Your task to perform on an android device: Do I have any events tomorrow? Image 0: 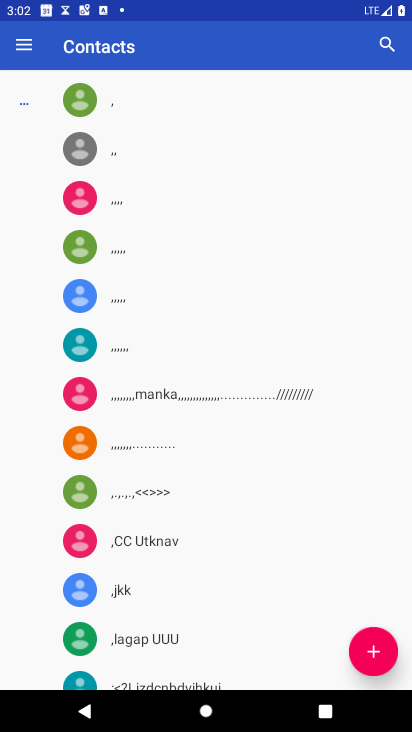
Step 0: press home button
Your task to perform on an android device: Do I have any events tomorrow? Image 1: 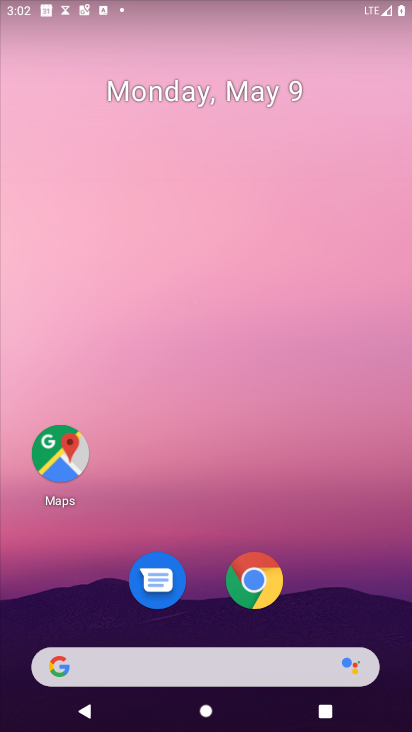
Step 1: drag from (341, 563) to (241, 114)
Your task to perform on an android device: Do I have any events tomorrow? Image 2: 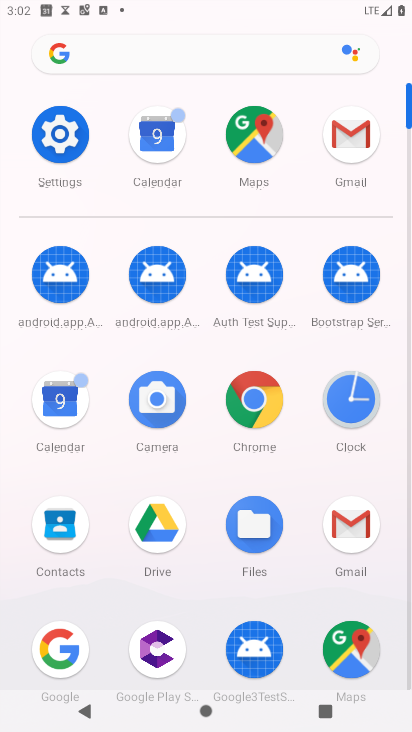
Step 2: click (54, 399)
Your task to perform on an android device: Do I have any events tomorrow? Image 3: 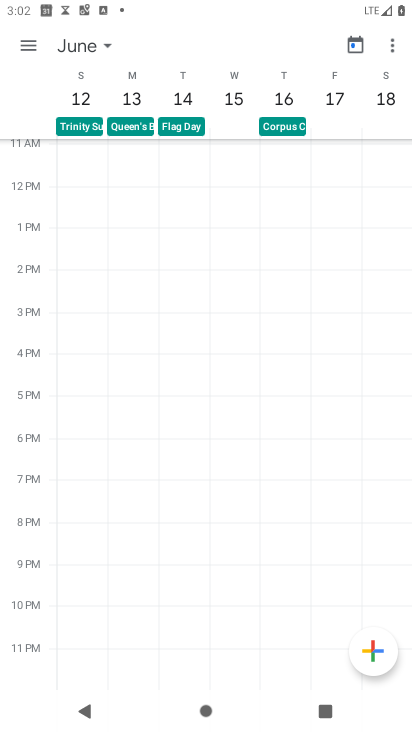
Step 3: click (39, 43)
Your task to perform on an android device: Do I have any events tomorrow? Image 4: 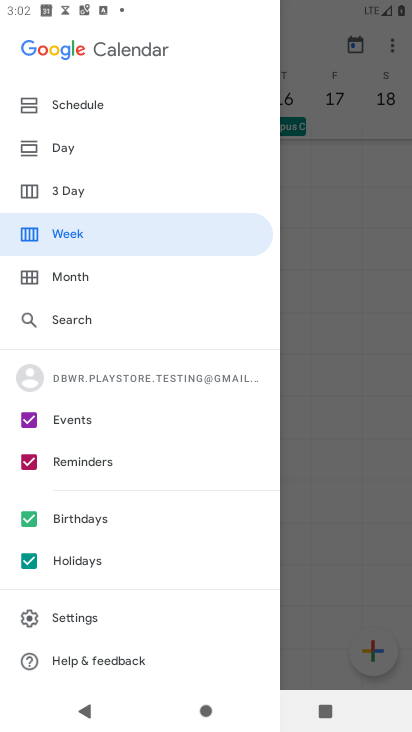
Step 4: click (80, 147)
Your task to perform on an android device: Do I have any events tomorrow? Image 5: 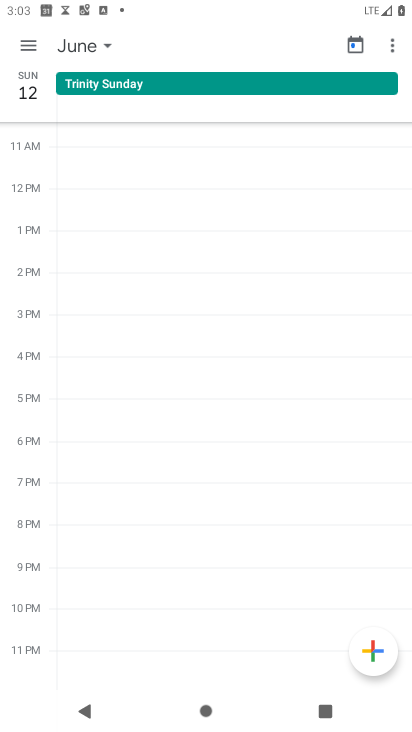
Step 5: click (97, 42)
Your task to perform on an android device: Do I have any events tomorrow? Image 6: 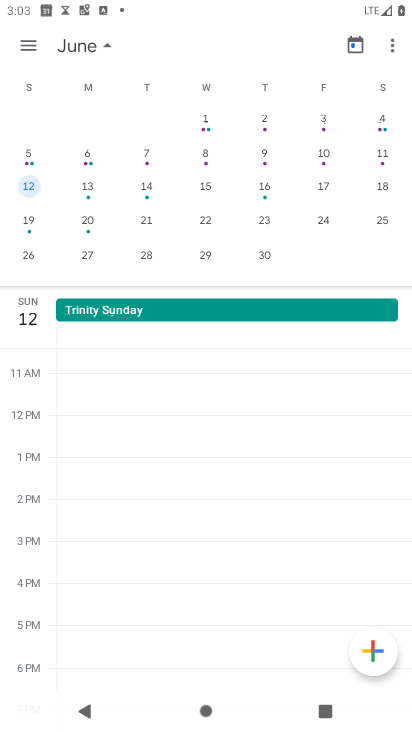
Step 6: drag from (107, 137) to (398, 143)
Your task to perform on an android device: Do I have any events tomorrow? Image 7: 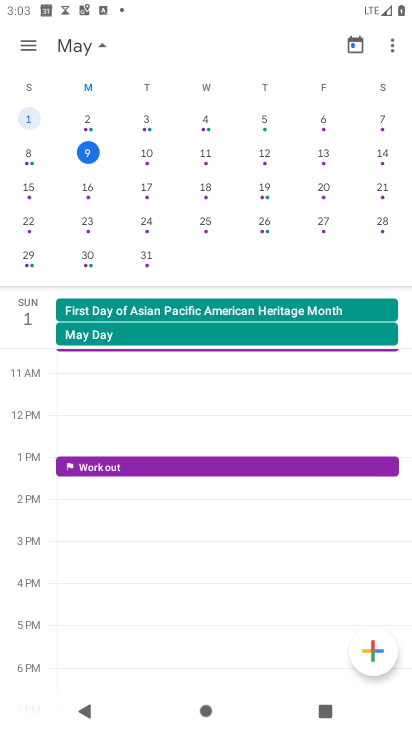
Step 7: click (146, 145)
Your task to perform on an android device: Do I have any events tomorrow? Image 8: 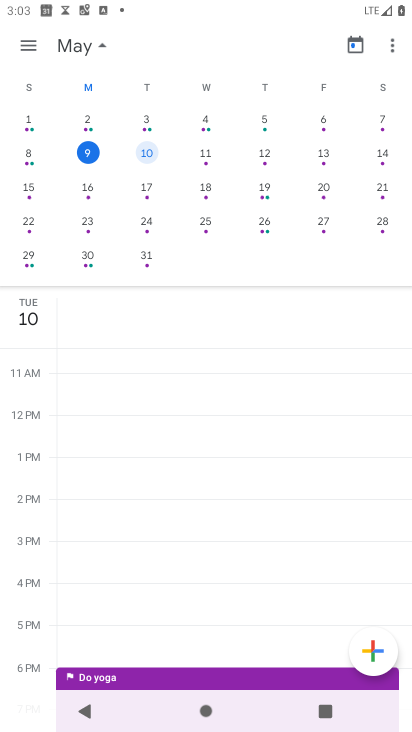
Step 8: task complete